Your task to perform on an android device: Open internet settings Image 0: 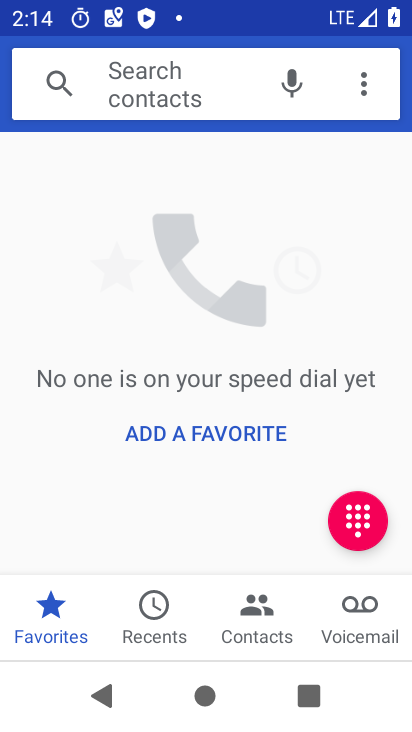
Step 0: press home button
Your task to perform on an android device: Open internet settings Image 1: 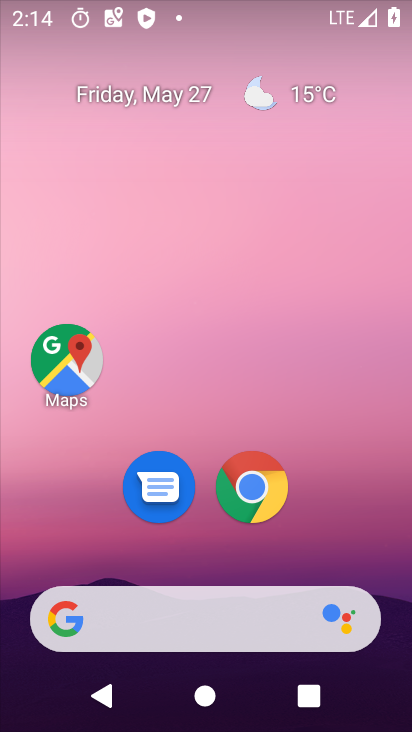
Step 1: drag from (345, 520) to (286, 216)
Your task to perform on an android device: Open internet settings Image 2: 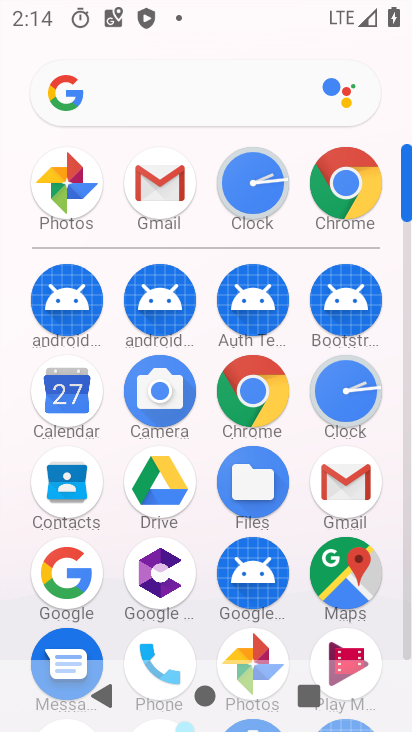
Step 2: drag from (203, 618) to (223, 295)
Your task to perform on an android device: Open internet settings Image 3: 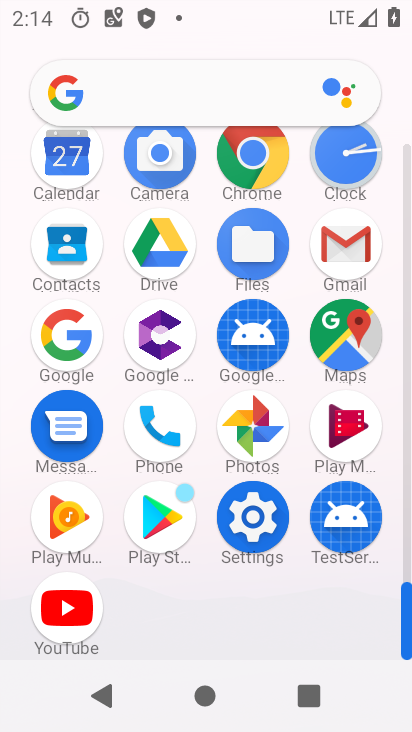
Step 3: click (252, 540)
Your task to perform on an android device: Open internet settings Image 4: 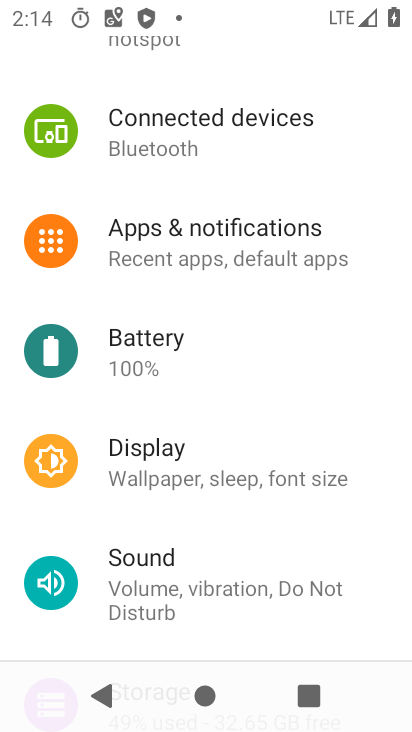
Step 4: drag from (229, 543) to (241, 203)
Your task to perform on an android device: Open internet settings Image 5: 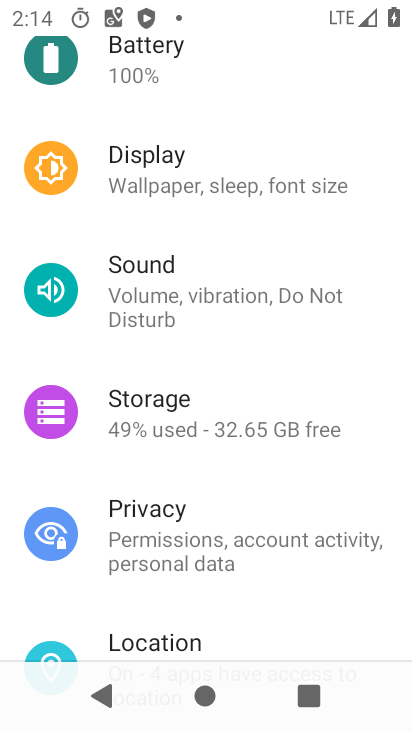
Step 5: drag from (212, 492) to (228, 278)
Your task to perform on an android device: Open internet settings Image 6: 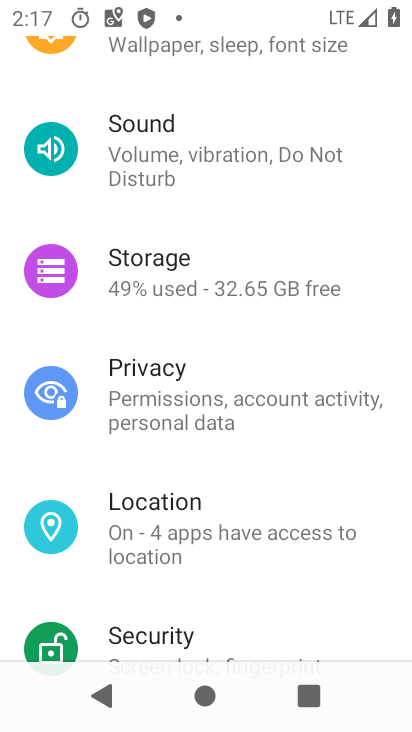
Step 6: press home button
Your task to perform on an android device: Open internet settings Image 7: 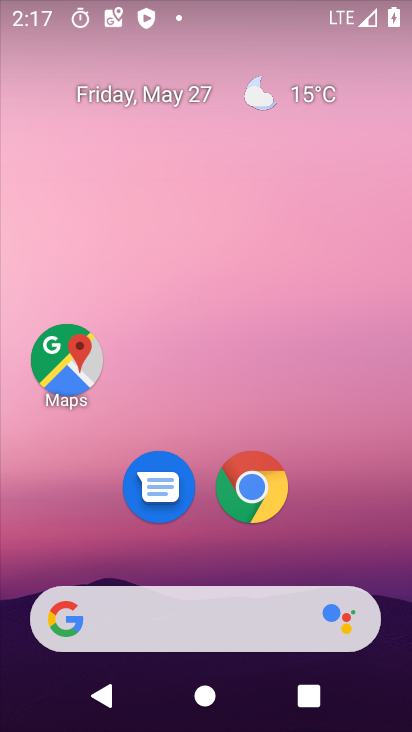
Step 7: drag from (338, 541) to (300, 123)
Your task to perform on an android device: Open internet settings Image 8: 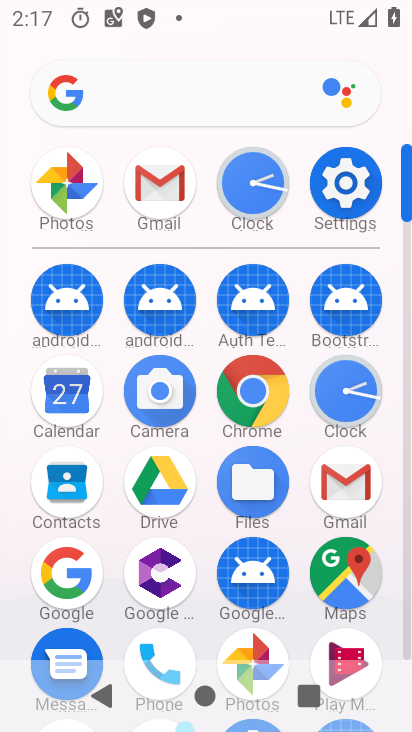
Step 8: click (346, 178)
Your task to perform on an android device: Open internet settings Image 9: 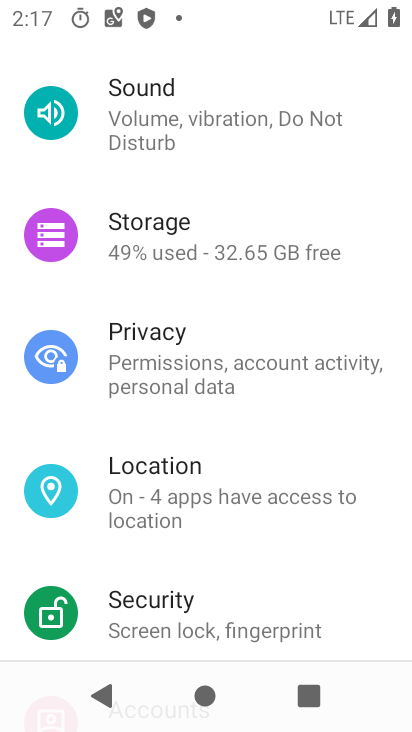
Step 9: drag from (219, 153) to (281, 603)
Your task to perform on an android device: Open internet settings Image 10: 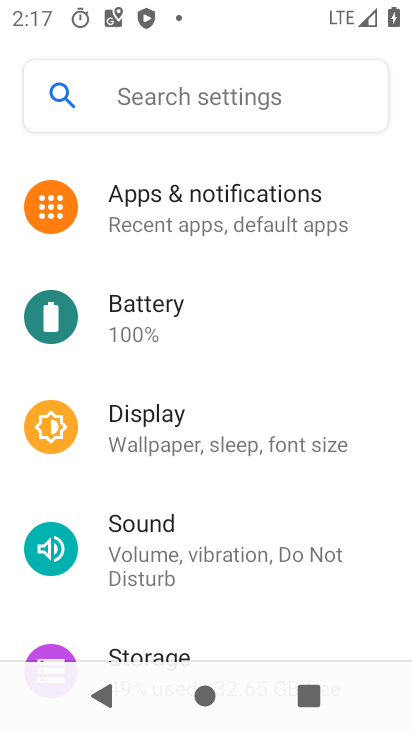
Step 10: drag from (196, 169) to (264, 604)
Your task to perform on an android device: Open internet settings Image 11: 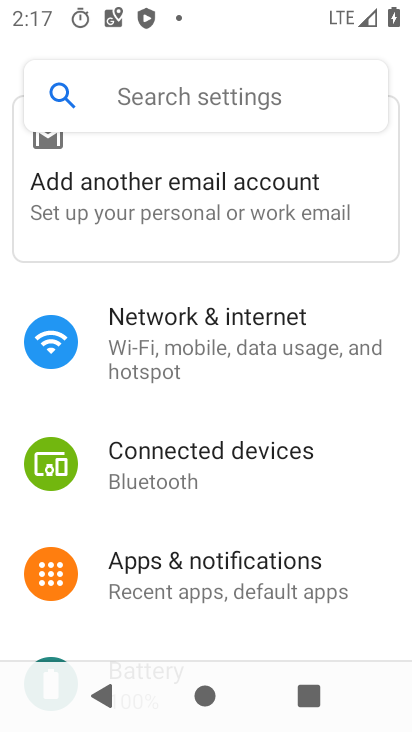
Step 11: click (170, 272)
Your task to perform on an android device: Open internet settings Image 12: 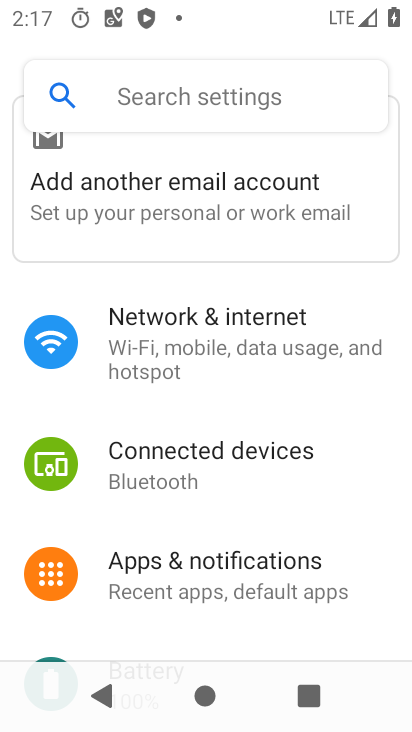
Step 12: click (218, 301)
Your task to perform on an android device: Open internet settings Image 13: 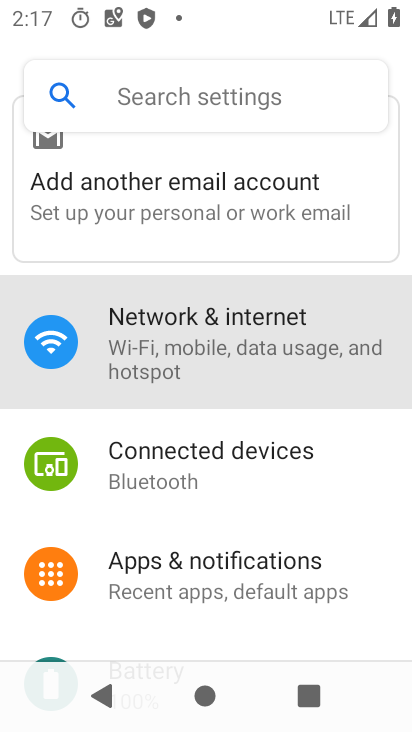
Step 13: click (187, 335)
Your task to perform on an android device: Open internet settings Image 14: 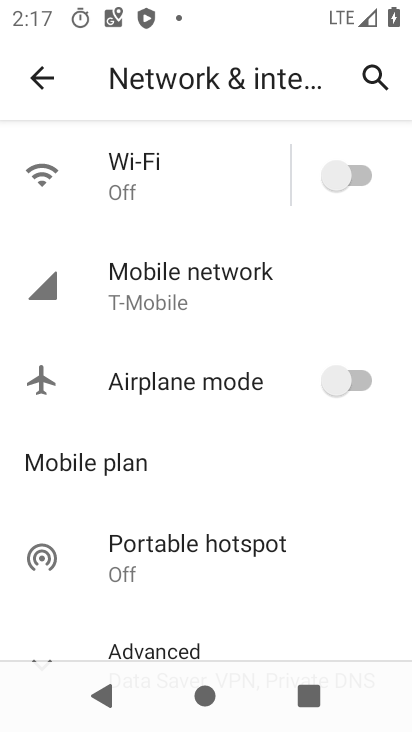
Step 14: task complete